Your task to perform on an android device: Go to eBay Image 0: 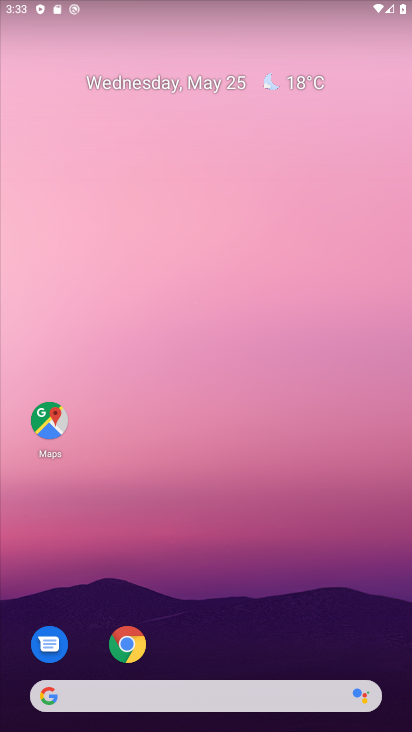
Step 0: drag from (253, 632) to (260, 116)
Your task to perform on an android device: Go to eBay Image 1: 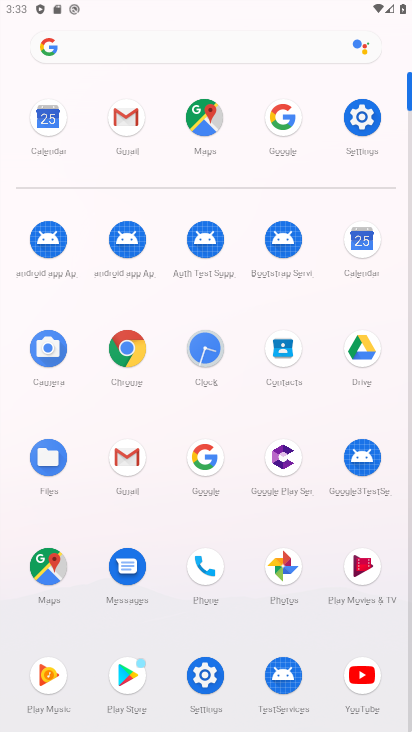
Step 1: click (282, 118)
Your task to perform on an android device: Go to eBay Image 2: 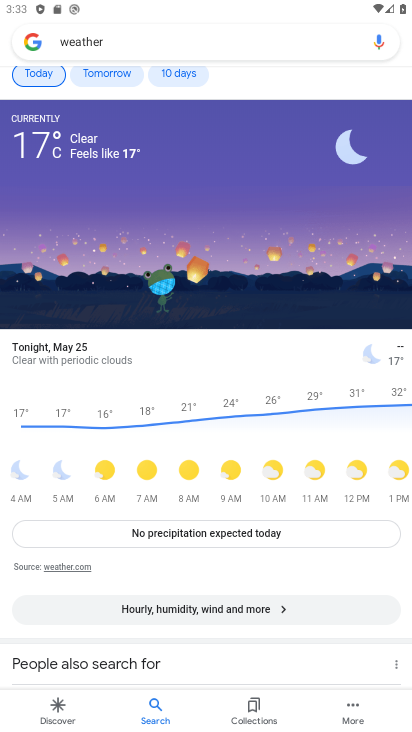
Step 2: click (279, 36)
Your task to perform on an android device: Go to eBay Image 3: 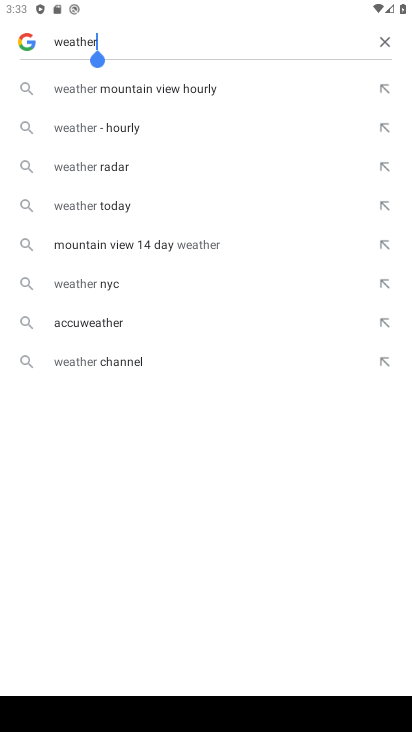
Step 3: click (383, 42)
Your task to perform on an android device: Go to eBay Image 4: 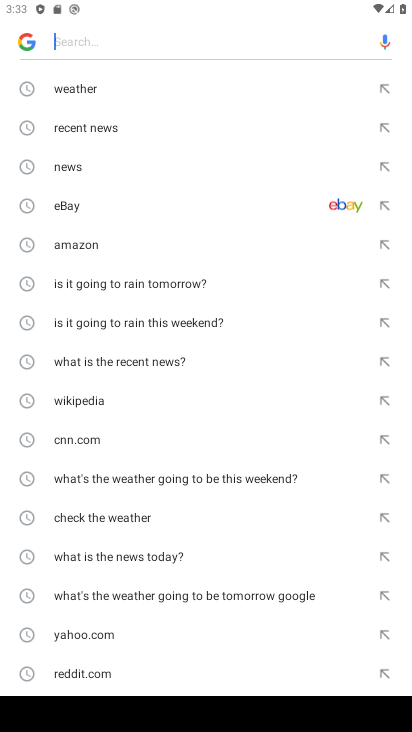
Step 4: type "eBay"
Your task to perform on an android device: Go to eBay Image 5: 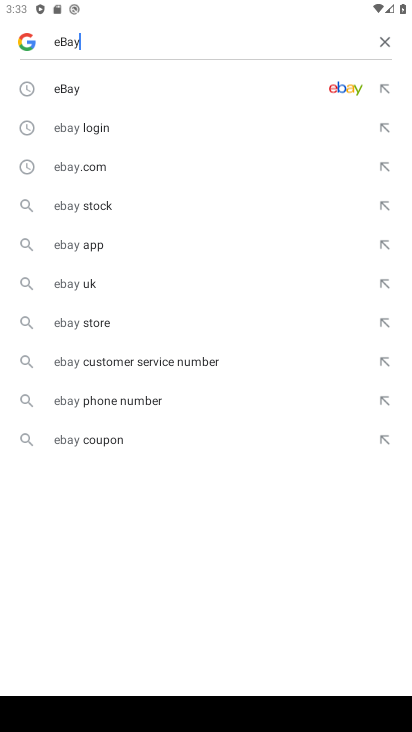
Step 5: click (66, 81)
Your task to perform on an android device: Go to eBay Image 6: 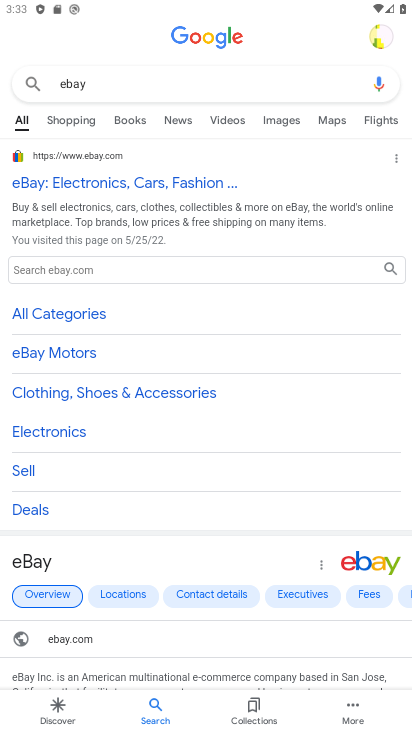
Step 6: click (73, 184)
Your task to perform on an android device: Go to eBay Image 7: 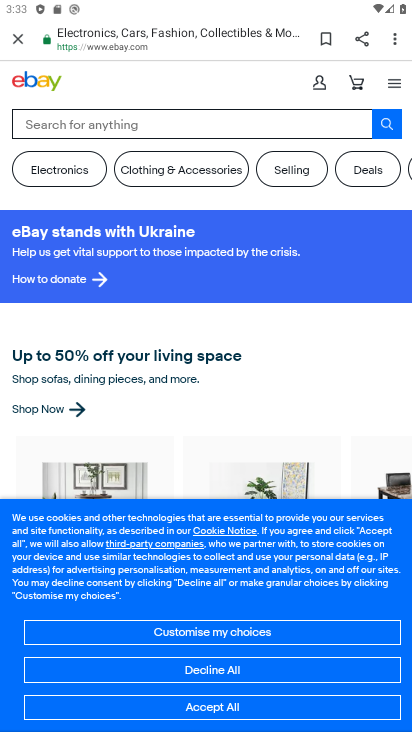
Step 7: task complete